Your task to perform on an android device: What's the weather today? Image 0: 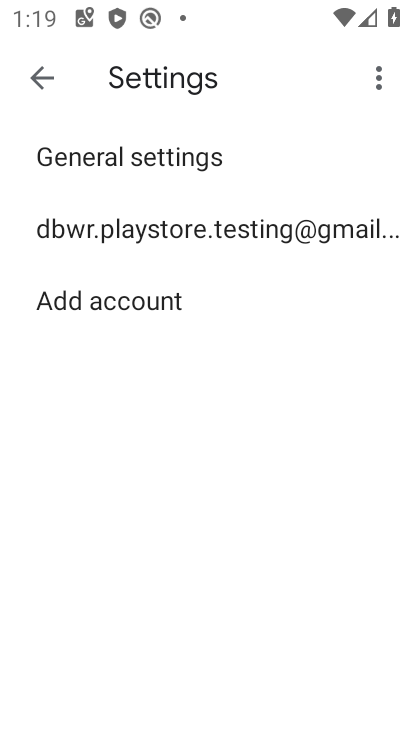
Step 0: press home button
Your task to perform on an android device: What's the weather today? Image 1: 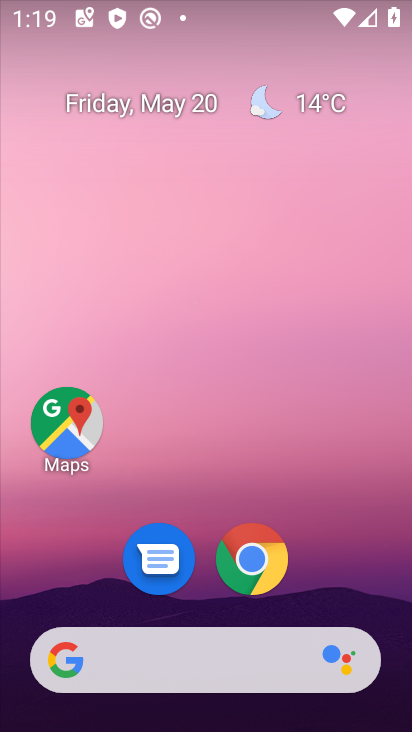
Step 1: click (200, 660)
Your task to perform on an android device: What's the weather today? Image 2: 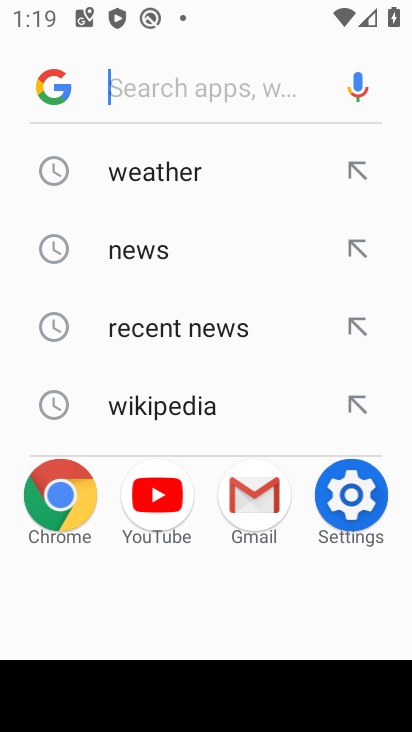
Step 2: click (188, 173)
Your task to perform on an android device: What's the weather today? Image 3: 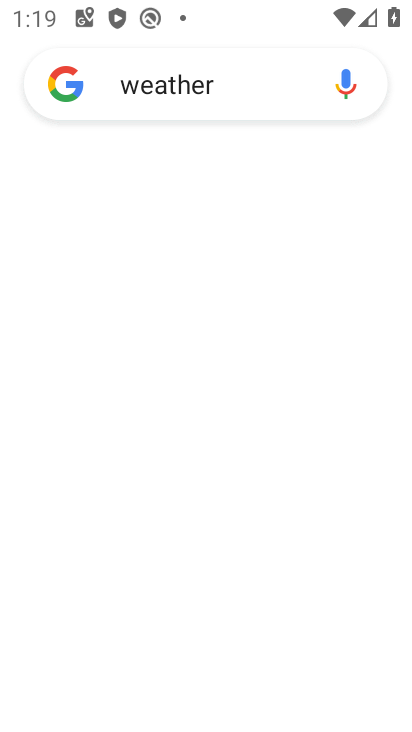
Step 3: task complete